Your task to perform on an android device: How much does a 3 bedroom apartment rent for in Seattle? Image 0: 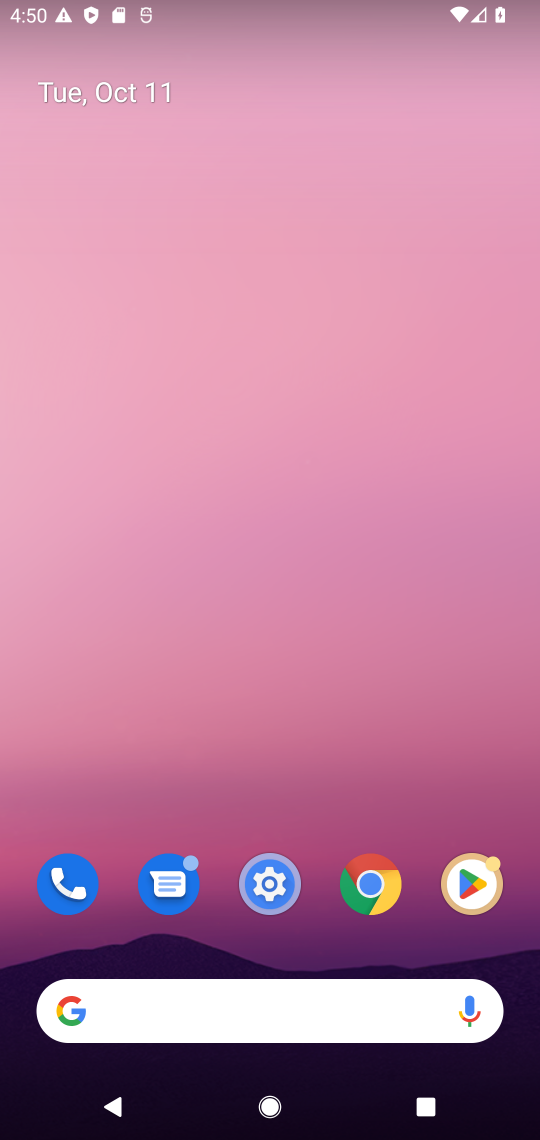
Step 0: drag from (264, 795) to (185, 129)
Your task to perform on an android device: How much does a 3 bedroom apartment rent for in Seattle? Image 1: 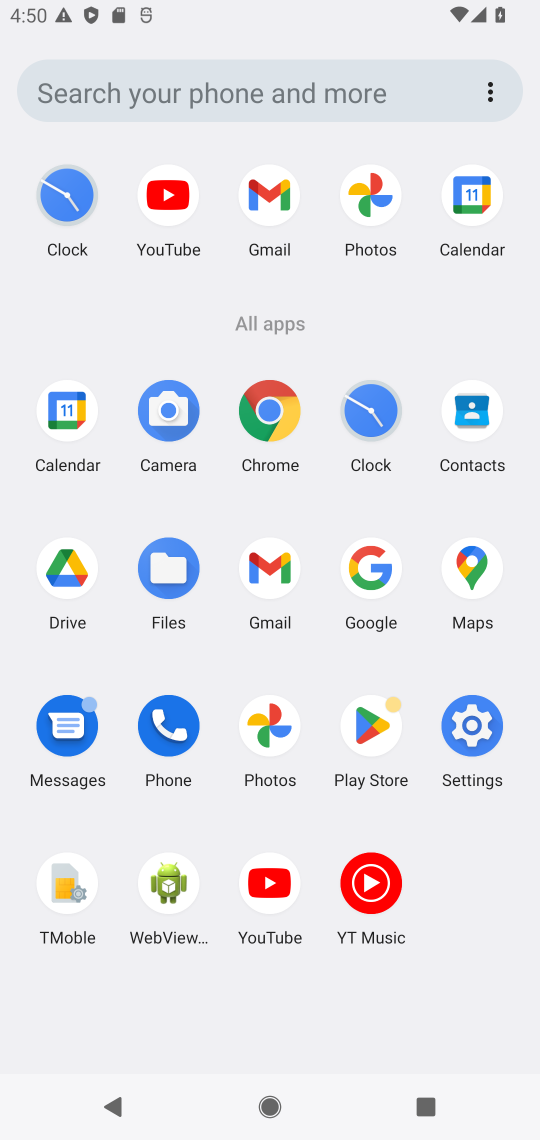
Step 1: click (273, 407)
Your task to perform on an android device: How much does a 3 bedroom apartment rent for in Seattle? Image 2: 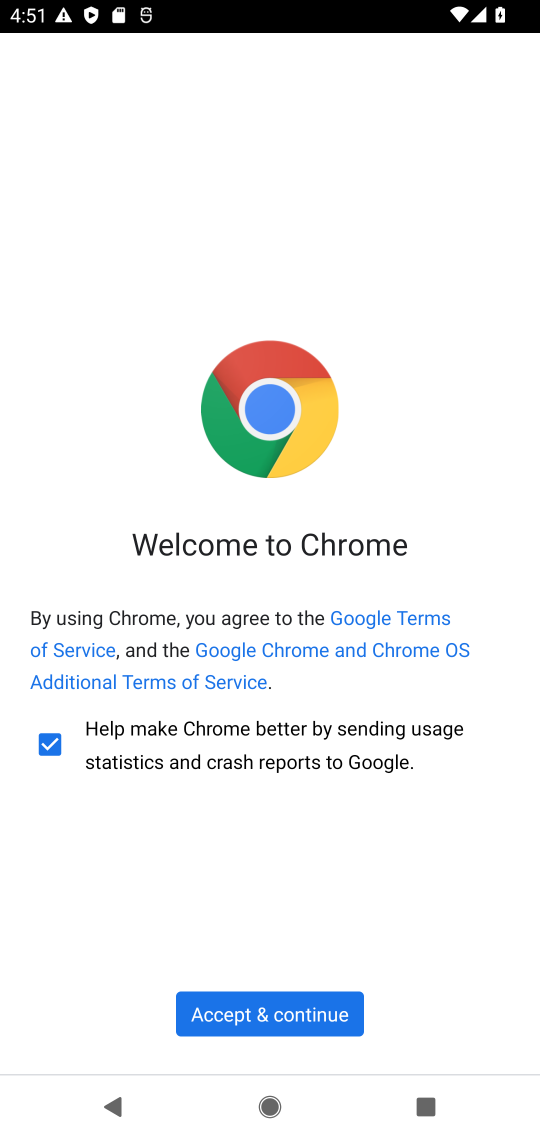
Step 2: click (282, 1013)
Your task to perform on an android device: How much does a 3 bedroom apartment rent for in Seattle? Image 3: 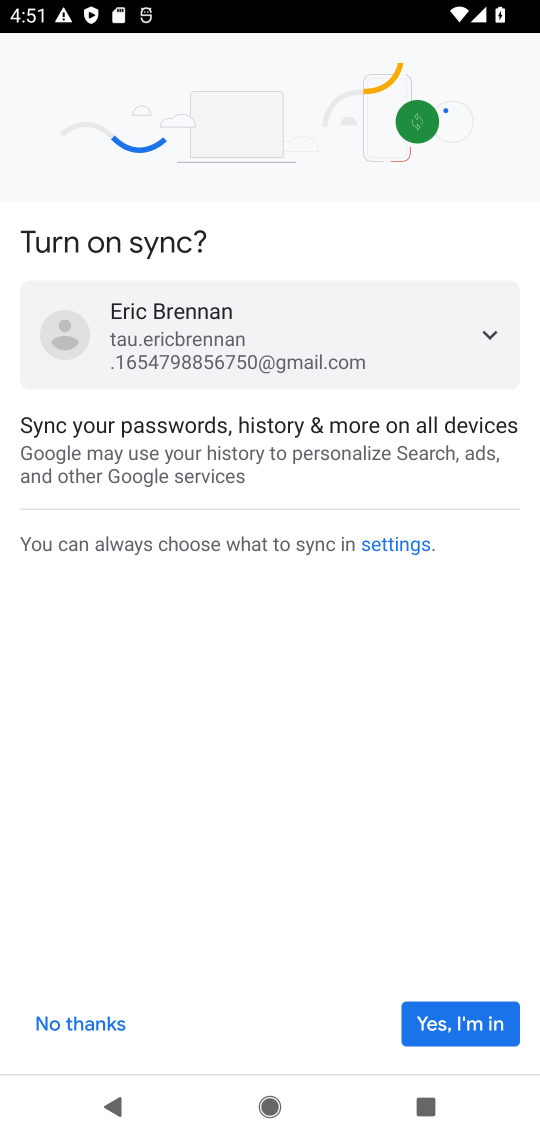
Step 3: click (445, 1015)
Your task to perform on an android device: How much does a 3 bedroom apartment rent for in Seattle? Image 4: 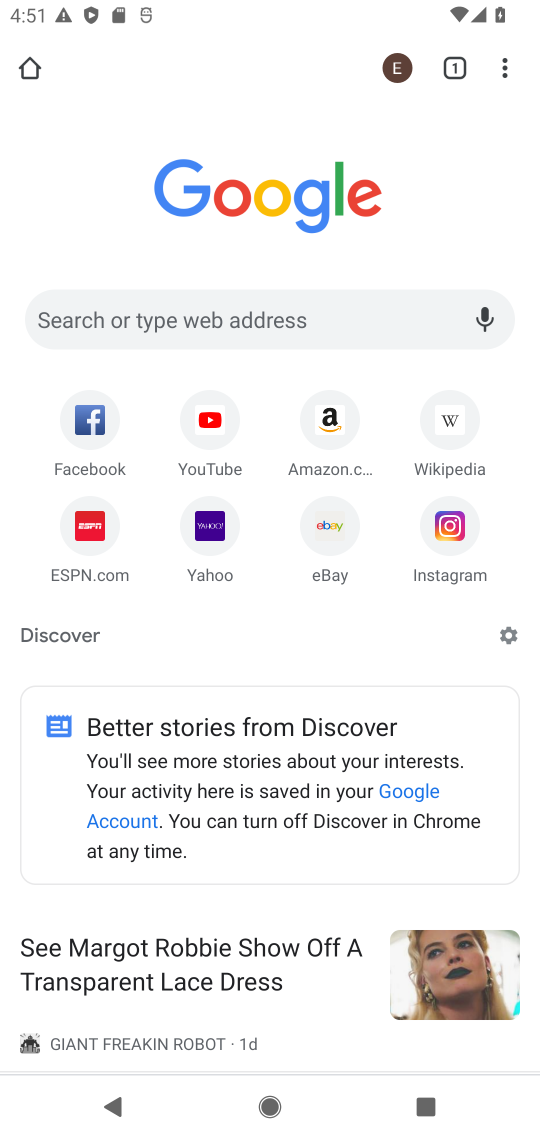
Step 4: click (273, 312)
Your task to perform on an android device: How much does a 3 bedroom apartment rent for in Seattle? Image 5: 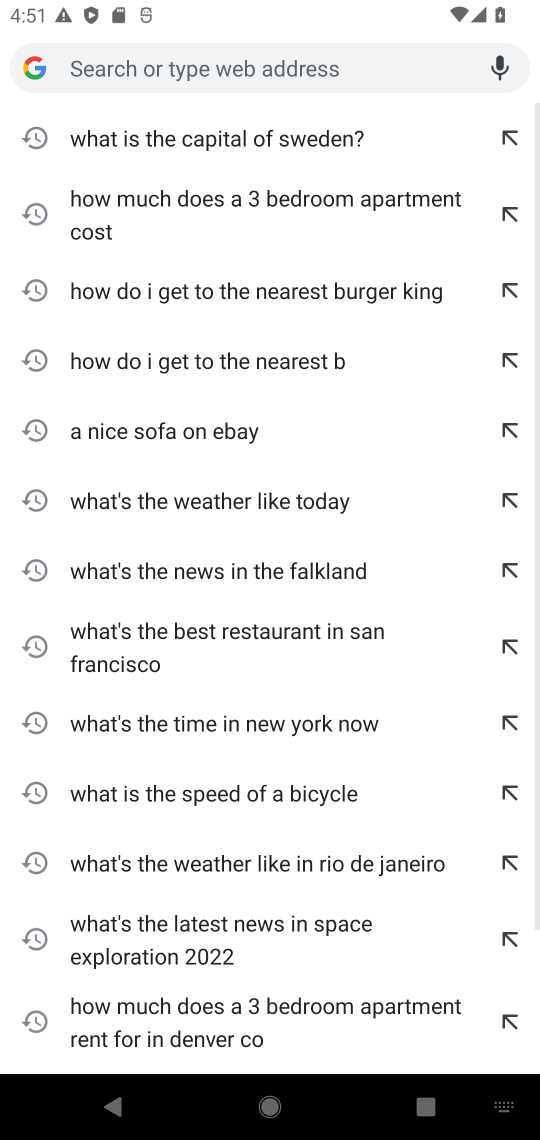
Step 5: type "How much does a 3 bedroom apartment rent for in Seattle?"
Your task to perform on an android device: How much does a 3 bedroom apartment rent for in Seattle? Image 6: 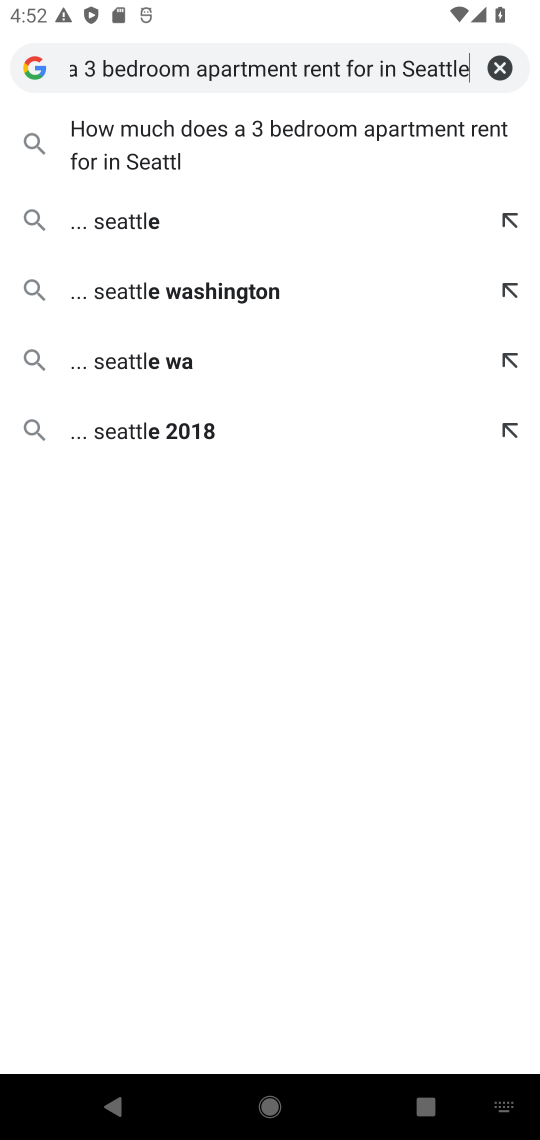
Step 6: type ""
Your task to perform on an android device: How much does a 3 bedroom apartment rent for in Seattle? Image 7: 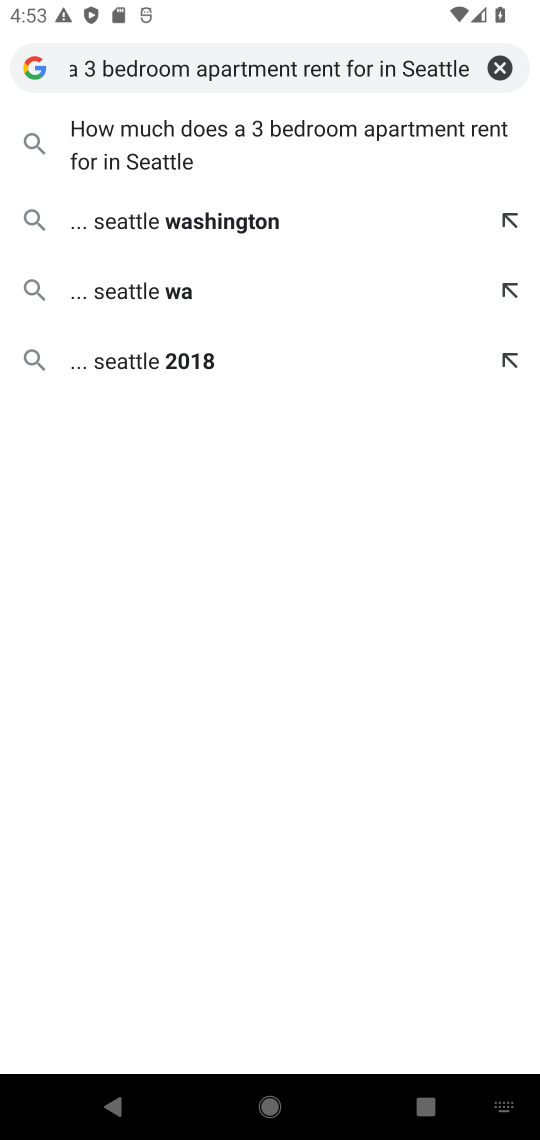
Step 7: click (190, 140)
Your task to perform on an android device: How much does a 3 bedroom apartment rent for in Seattle? Image 8: 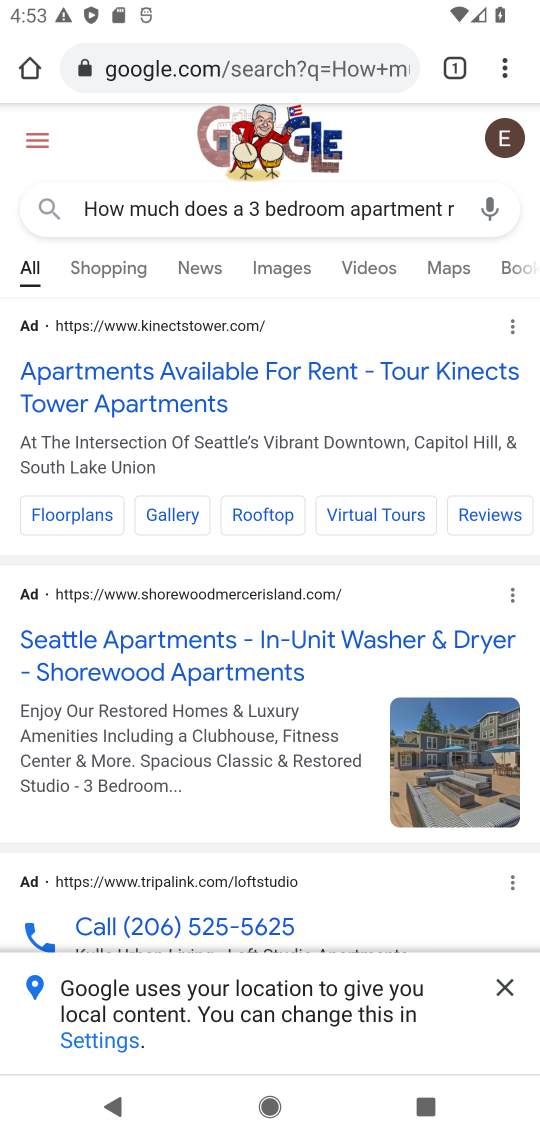
Step 8: click (497, 981)
Your task to perform on an android device: How much does a 3 bedroom apartment rent for in Seattle? Image 9: 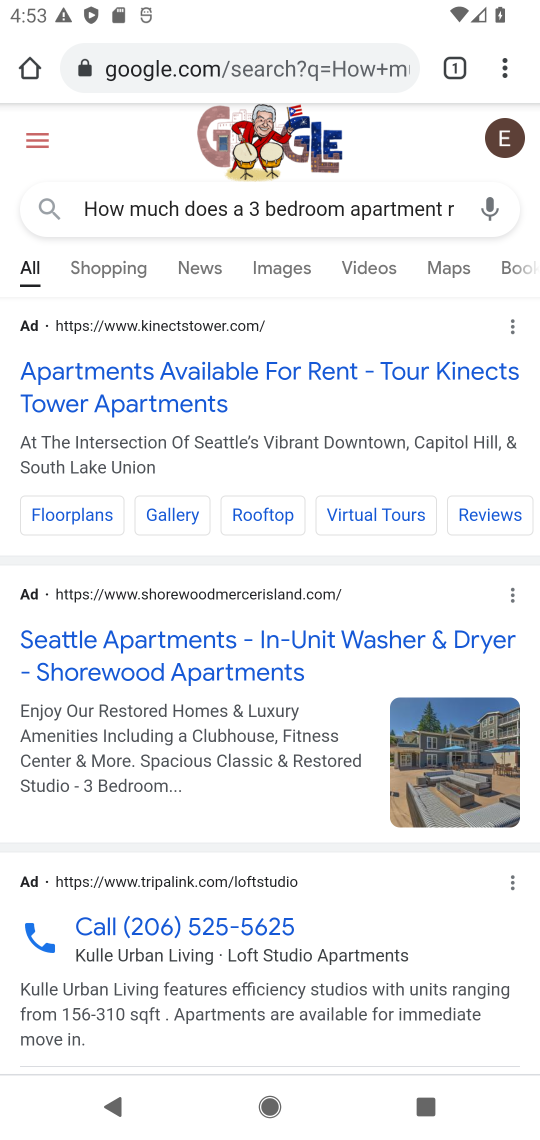
Step 9: click (150, 398)
Your task to perform on an android device: How much does a 3 bedroom apartment rent for in Seattle? Image 10: 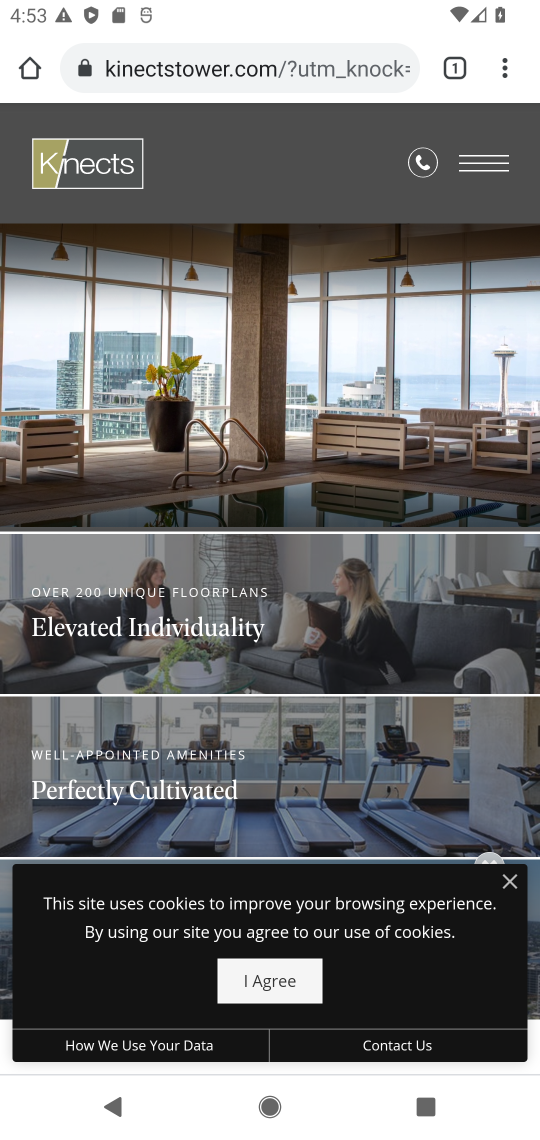
Step 10: task complete